Your task to perform on an android device: check the backup settings in the google photos Image 0: 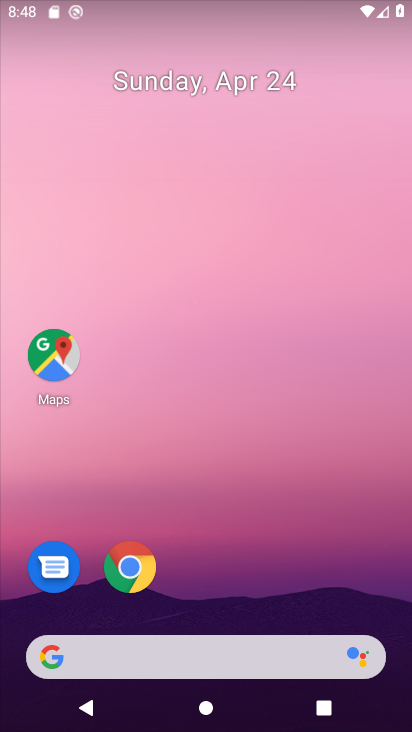
Step 0: drag from (258, 554) to (383, 109)
Your task to perform on an android device: check the backup settings in the google photos Image 1: 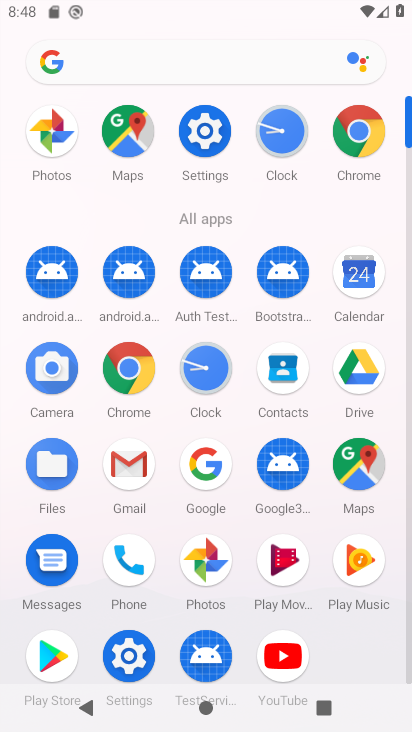
Step 1: click (54, 139)
Your task to perform on an android device: check the backup settings in the google photos Image 2: 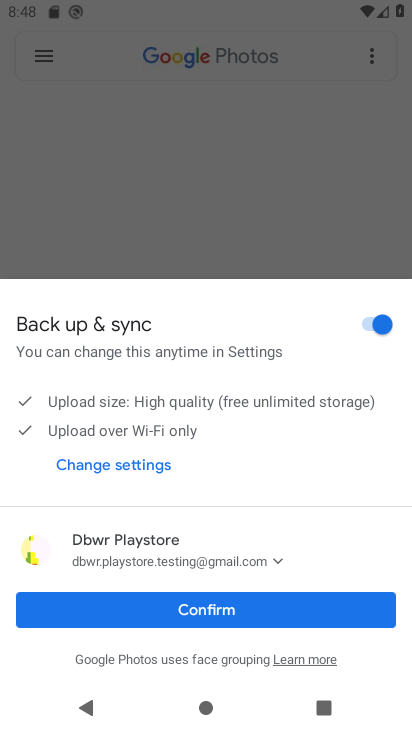
Step 2: click (197, 618)
Your task to perform on an android device: check the backup settings in the google photos Image 3: 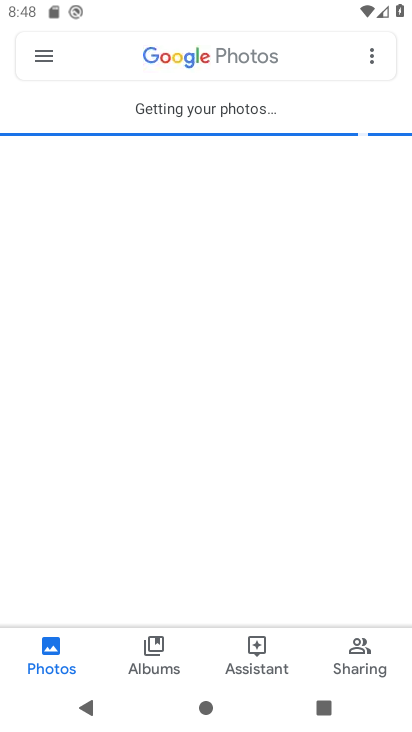
Step 3: click (37, 56)
Your task to perform on an android device: check the backup settings in the google photos Image 4: 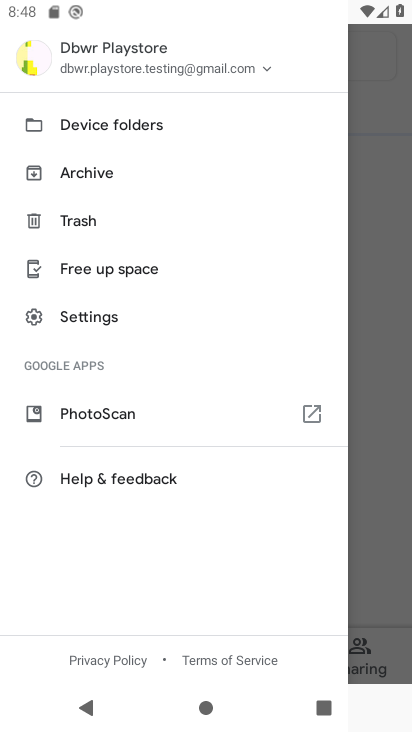
Step 4: click (72, 308)
Your task to perform on an android device: check the backup settings in the google photos Image 5: 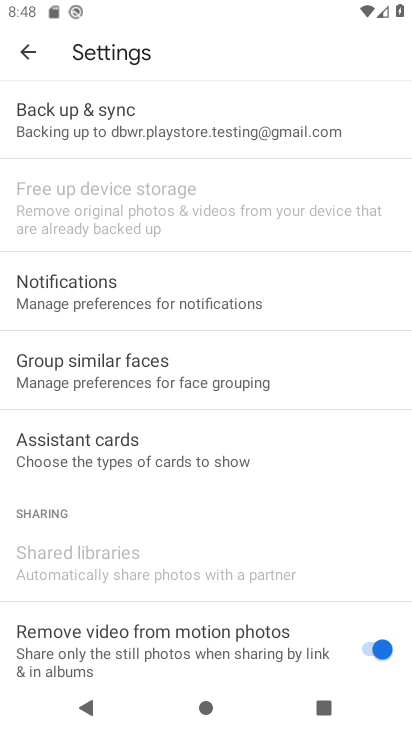
Step 5: click (137, 119)
Your task to perform on an android device: check the backup settings in the google photos Image 6: 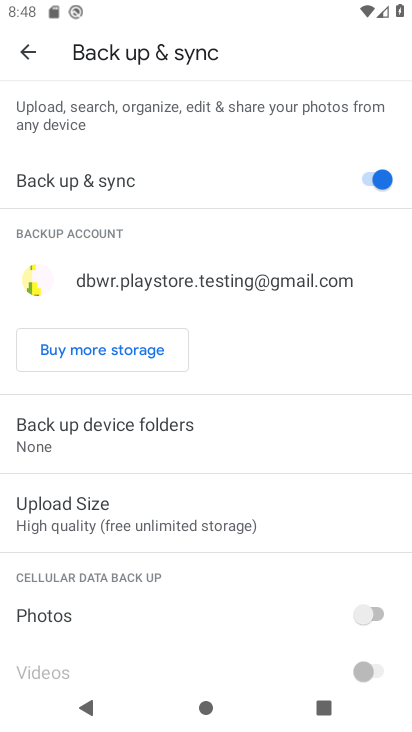
Step 6: task complete